Your task to perform on an android device: Open maps Image 0: 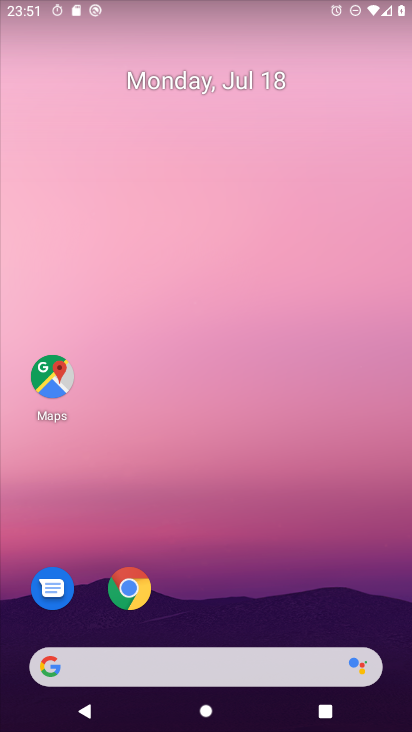
Step 0: press home button
Your task to perform on an android device: Open maps Image 1: 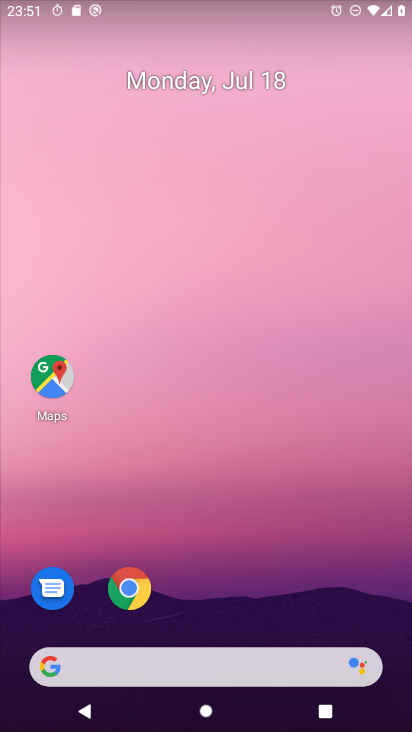
Step 1: click (50, 378)
Your task to perform on an android device: Open maps Image 2: 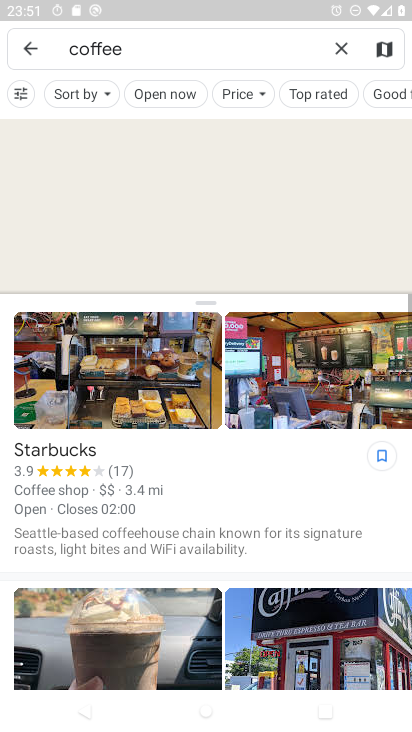
Step 2: click (30, 46)
Your task to perform on an android device: Open maps Image 3: 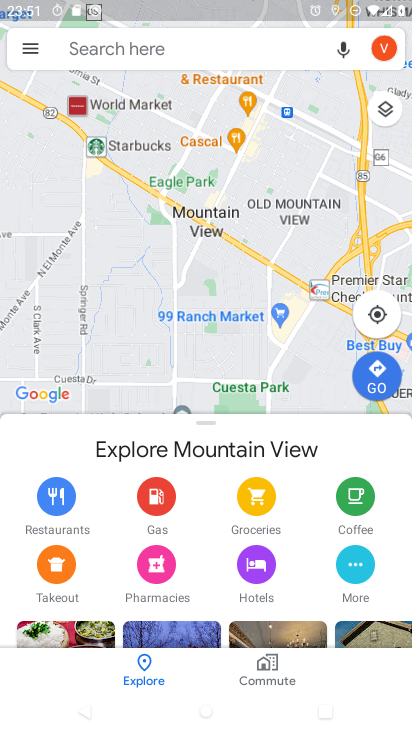
Step 3: task complete